Your task to perform on an android device: What's on my calendar today? Image 0: 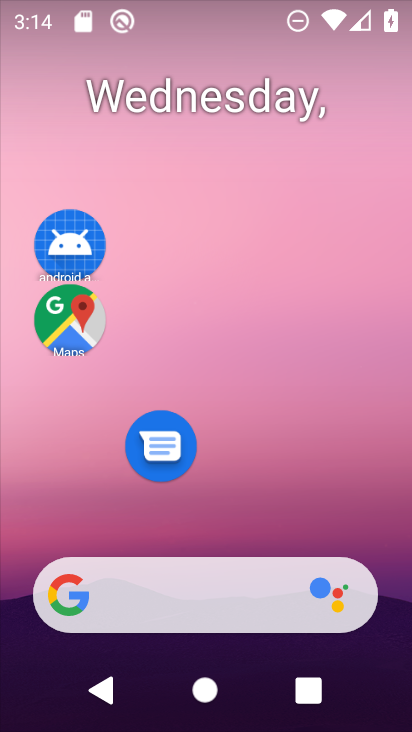
Step 0: drag from (297, 489) to (307, 135)
Your task to perform on an android device: What's on my calendar today? Image 1: 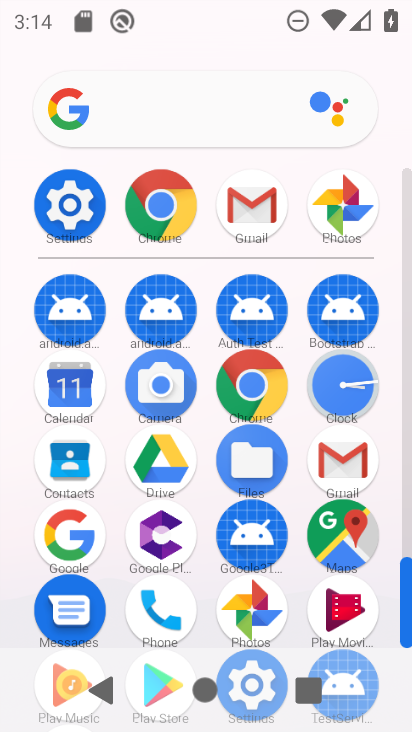
Step 1: click (161, 229)
Your task to perform on an android device: What's on my calendar today? Image 2: 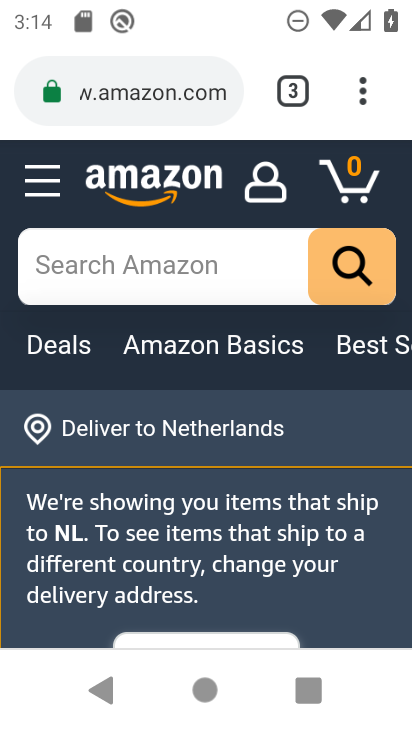
Step 2: click (368, 107)
Your task to perform on an android device: What's on my calendar today? Image 3: 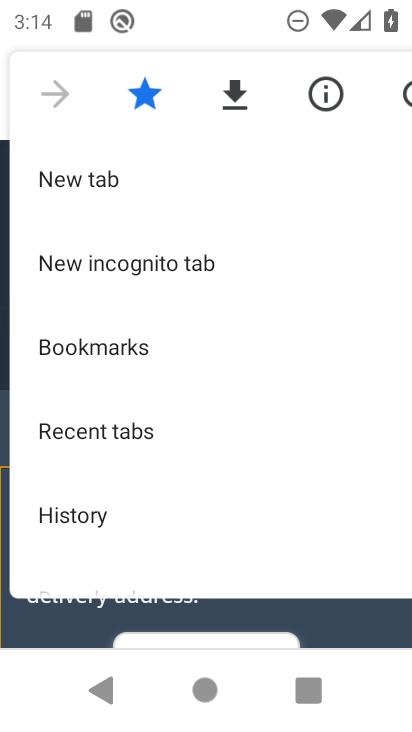
Step 3: click (183, 643)
Your task to perform on an android device: What's on my calendar today? Image 4: 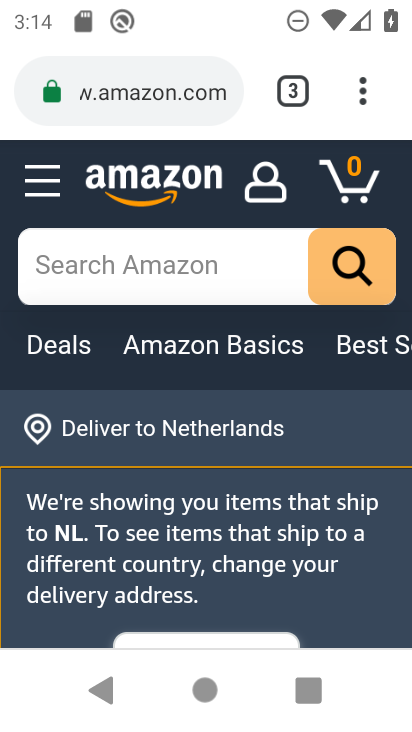
Step 4: press home button
Your task to perform on an android device: What's on my calendar today? Image 5: 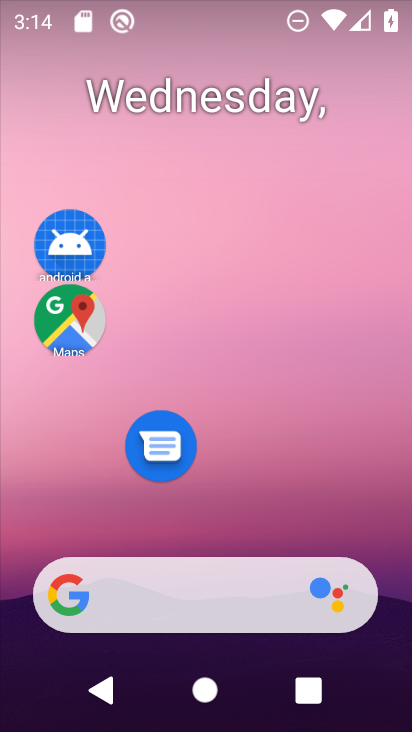
Step 5: drag from (248, 516) to (248, 154)
Your task to perform on an android device: What's on my calendar today? Image 6: 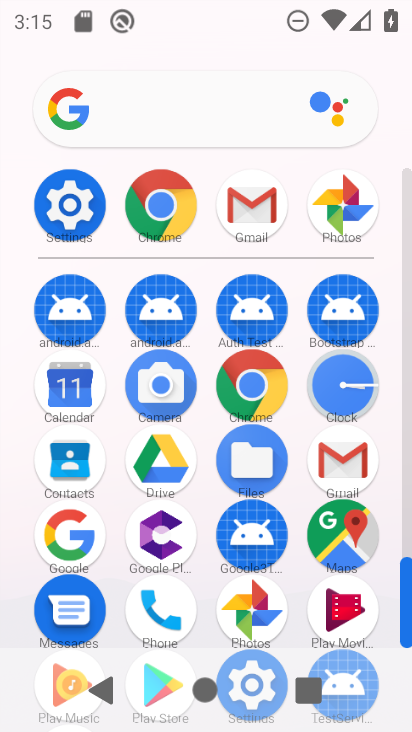
Step 6: click (68, 380)
Your task to perform on an android device: What's on my calendar today? Image 7: 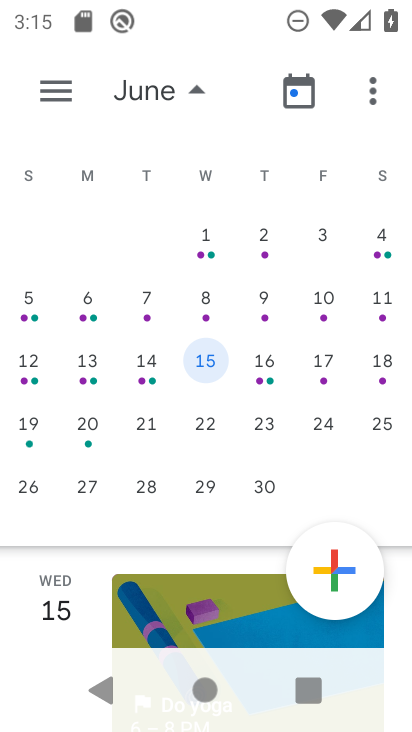
Step 7: task complete